Your task to perform on an android device: Go to Android settings Image 0: 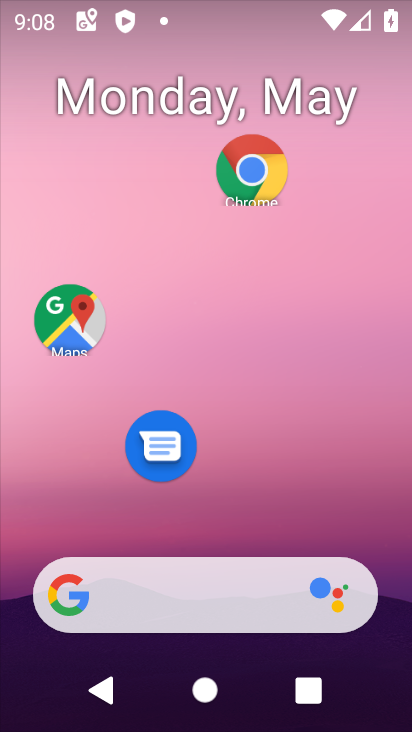
Step 0: press home button
Your task to perform on an android device: Go to Android settings Image 1: 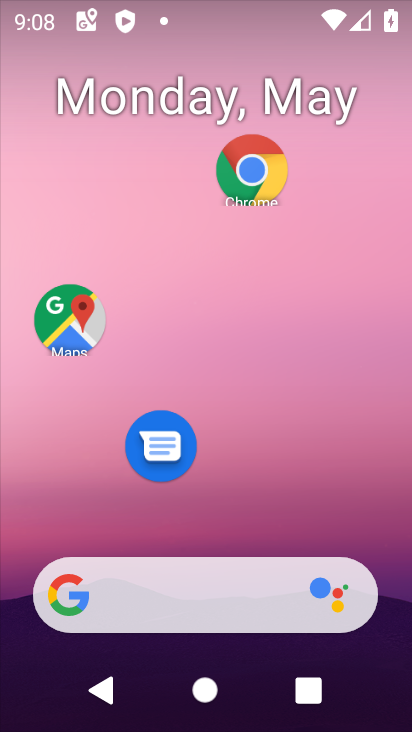
Step 1: drag from (233, 524) to (271, 8)
Your task to perform on an android device: Go to Android settings Image 2: 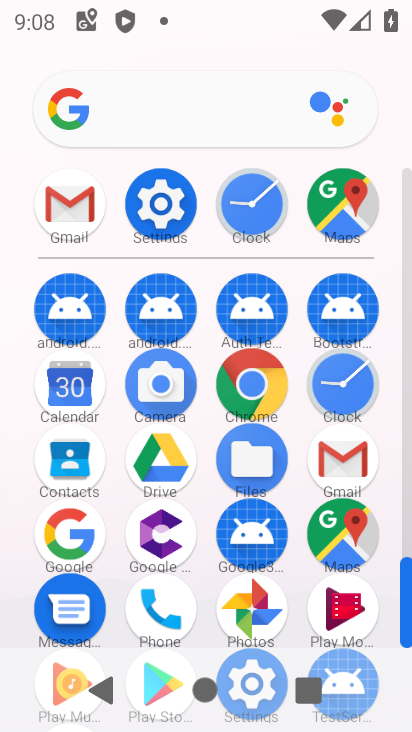
Step 2: click (162, 191)
Your task to perform on an android device: Go to Android settings Image 3: 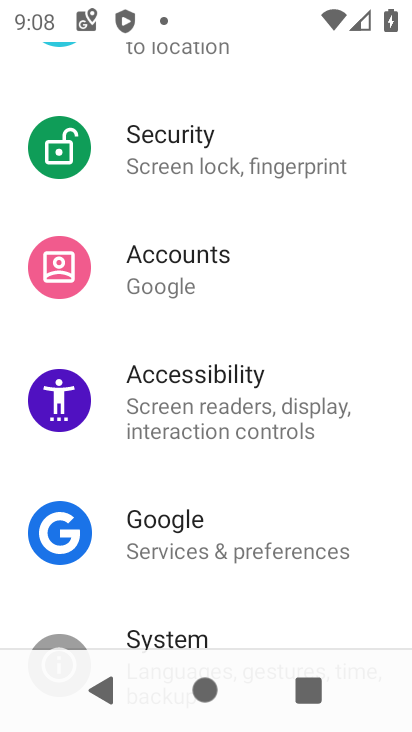
Step 3: drag from (227, 619) to (223, 96)
Your task to perform on an android device: Go to Android settings Image 4: 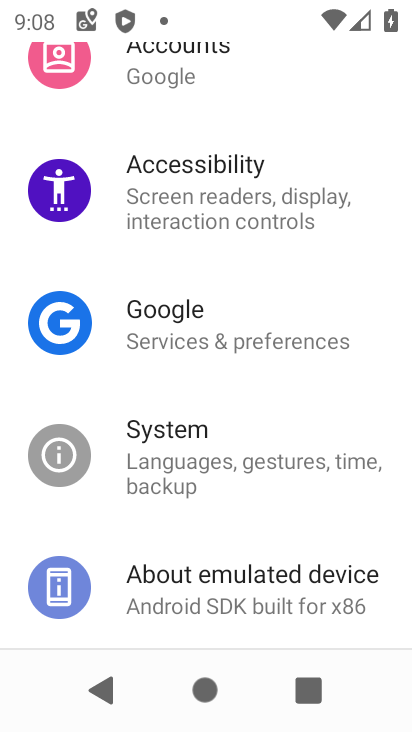
Step 4: click (191, 586)
Your task to perform on an android device: Go to Android settings Image 5: 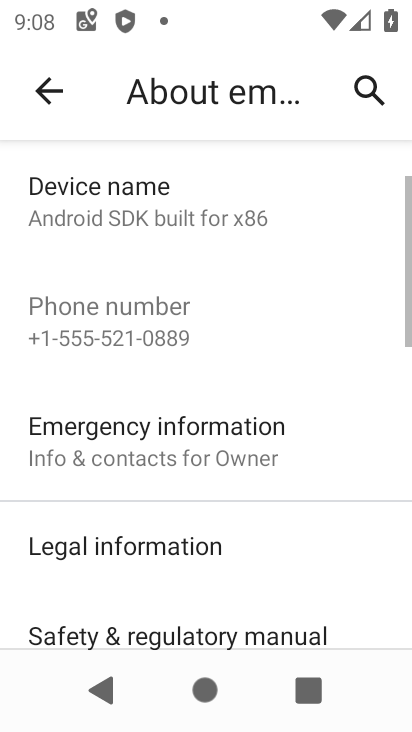
Step 5: task complete